Your task to perform on an android device: search for starred emails in the gmail app Image 0: 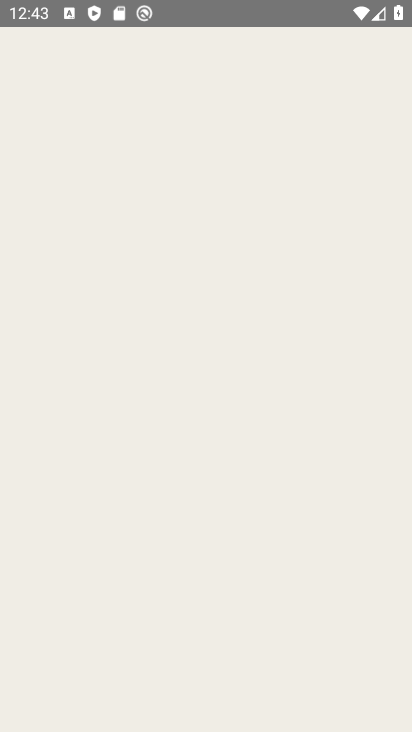
Step 0: click (250, 549)
Your task to perform on an android device: search for starred emails in the gmail app Image 1: 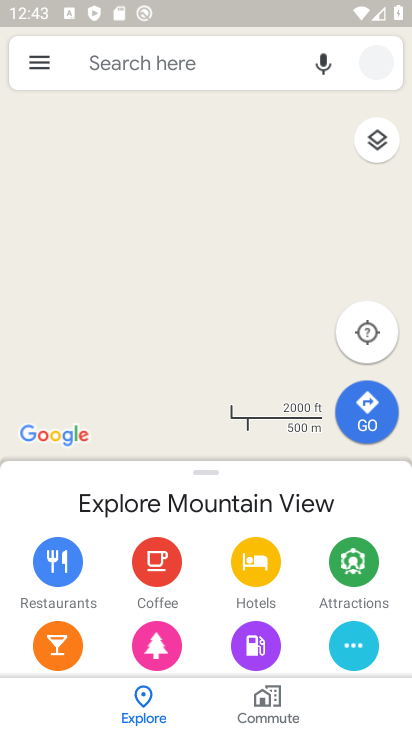
Step 1: press home button
Your task to perform on an android device: search for starred emails in the gmail app Image 2: 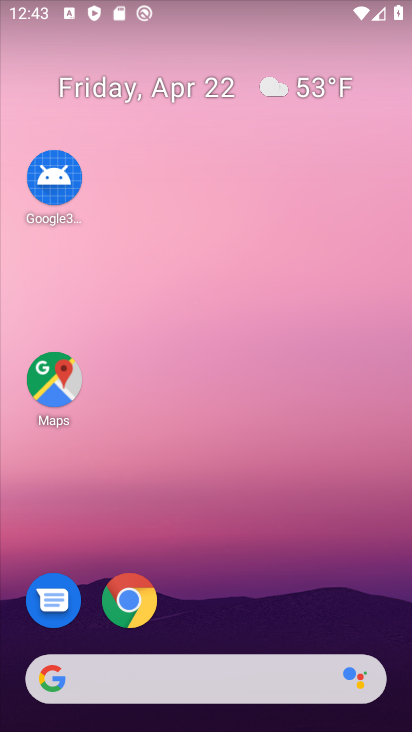
Step 2: drag from (219, 590) to (197, 101)
Your task to perform on an android device: search for starred emails in the gmail app Image 3: 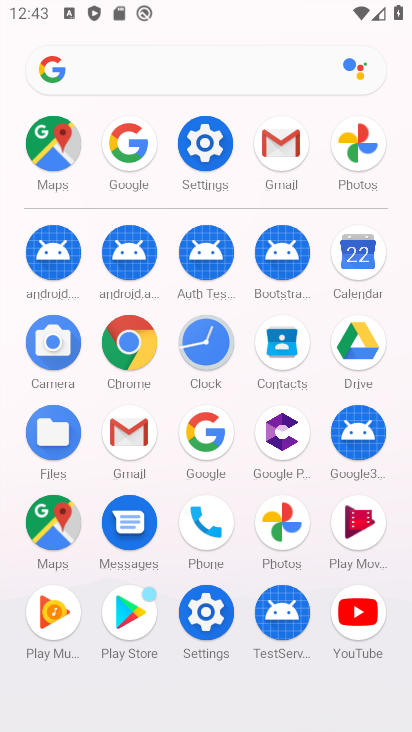
Step 3: click (278, 149)
Your task to perform on an android device: search for starred emails in the gmail app Image 4: 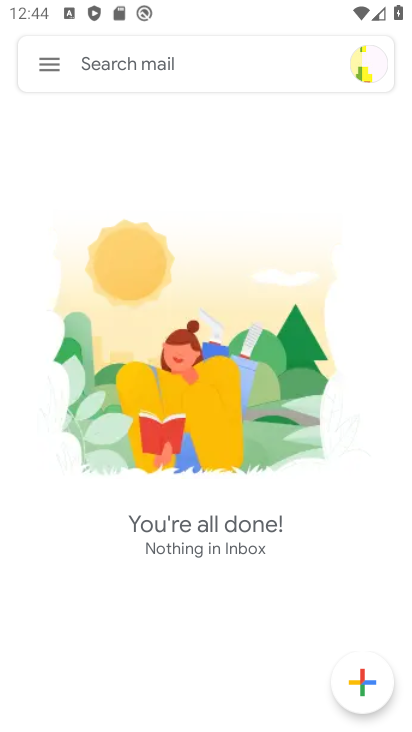
Step 4: click (153, 63)
Your task to perform on an android device: search for starred emails in the gmail app Image 5: 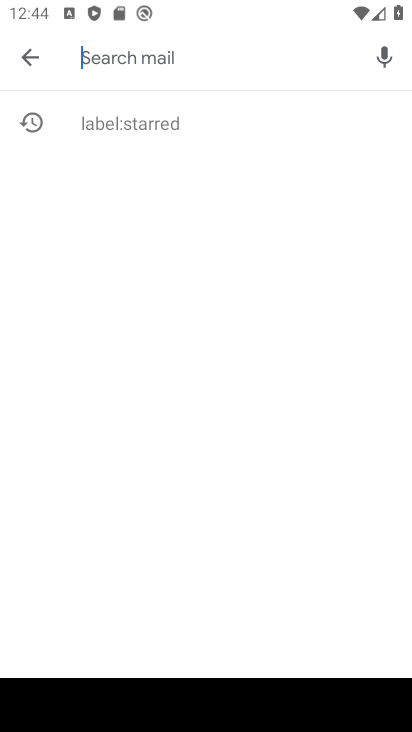
Step 5: click (197, 113)
Your task to perform on an android device: search for starred emails in the gmail app Image 6: 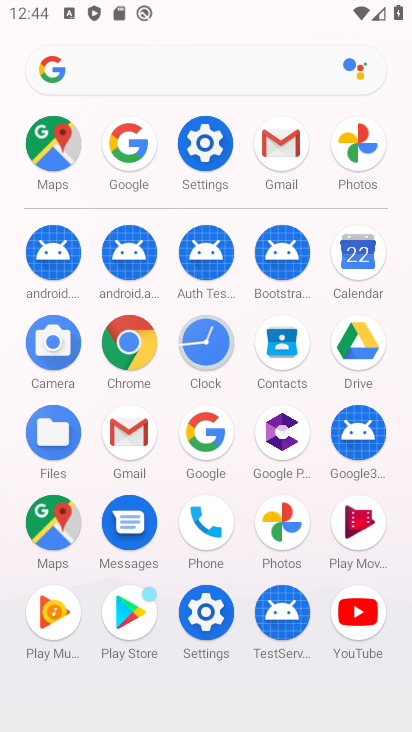
Step 6: task complete